Your task to perform on an android device: find snoozed emails in the gmail app Image 0: 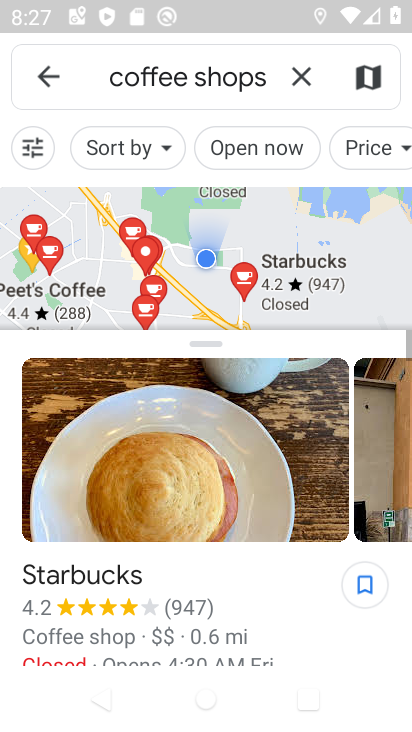
Step 0: press home button
Your task to perform on an android device: find snoozed emails in the gmail app Image 1: 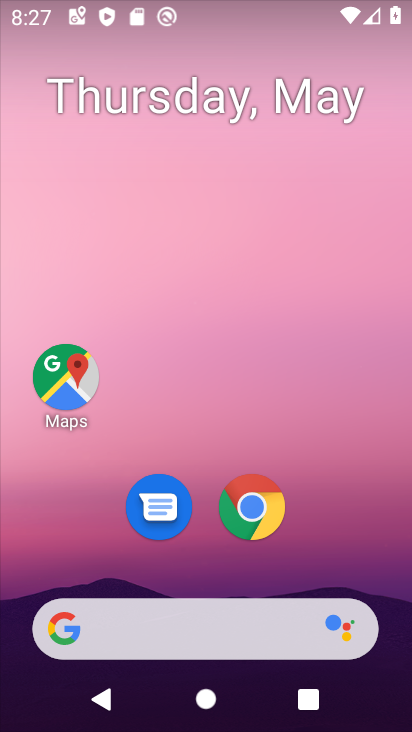
Step 1: drag from (360, 535) to (369, 75)
Your task to perform on an android device: find snoozed emails in the gmail app Image 2: 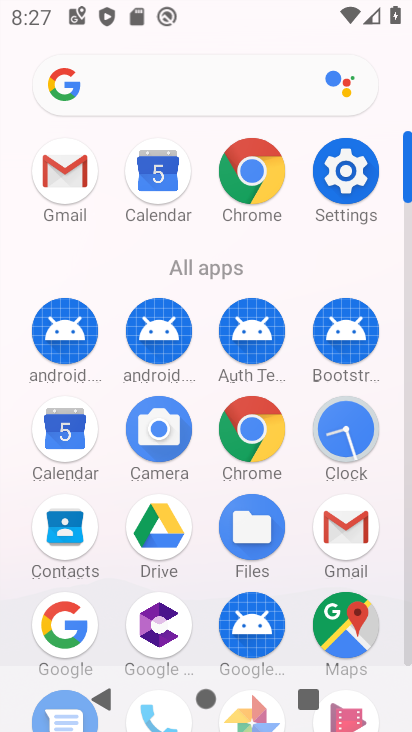
Step 2: click (353, 528)
Your task to perform on an android device: find snoozed emails in the gmail app Image 3: 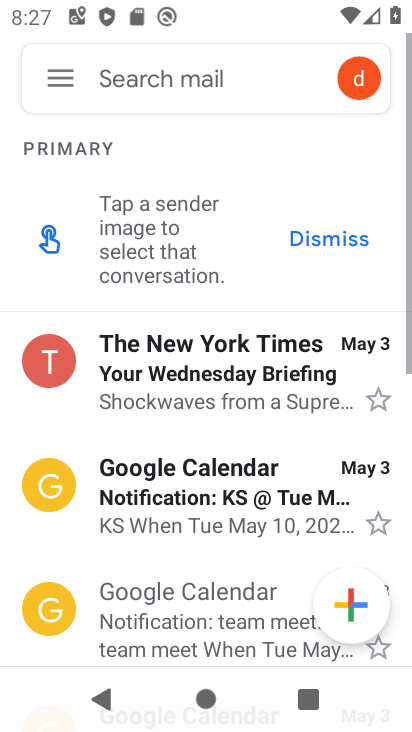
Step 3: click (59, 81)
Your task to perform on an android device: find snoozed emails in the gmail app Image 4: 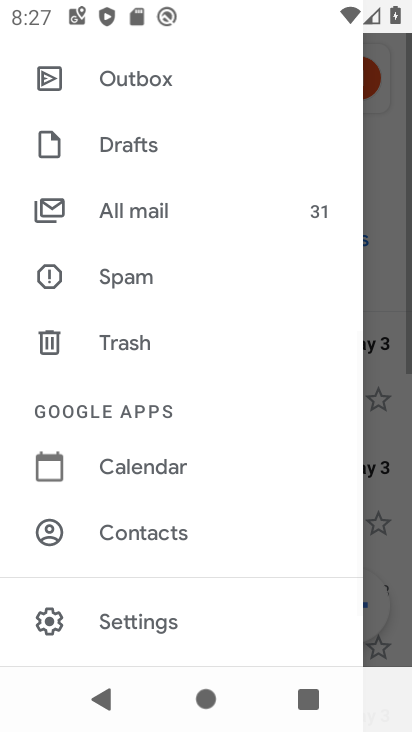
Step 4: drag from (205, 200) to (180, 518)
Your task to perform on an android device: find snoozed emails in the gmail app Image 5: 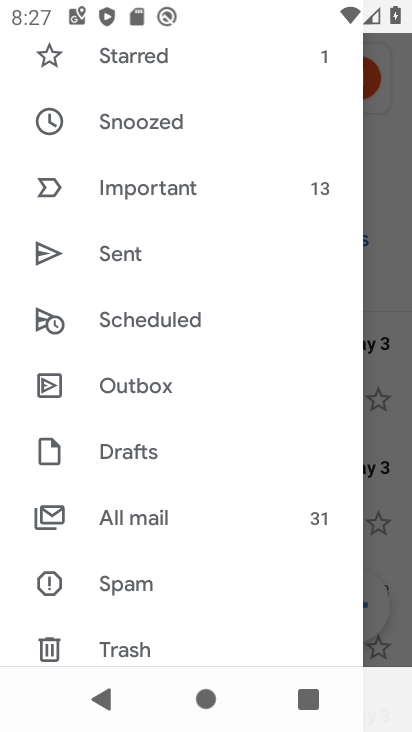
Step 5: click (179, 122)
Your task to perform on an android device: find snoozed emails in the gmail app Image 6: 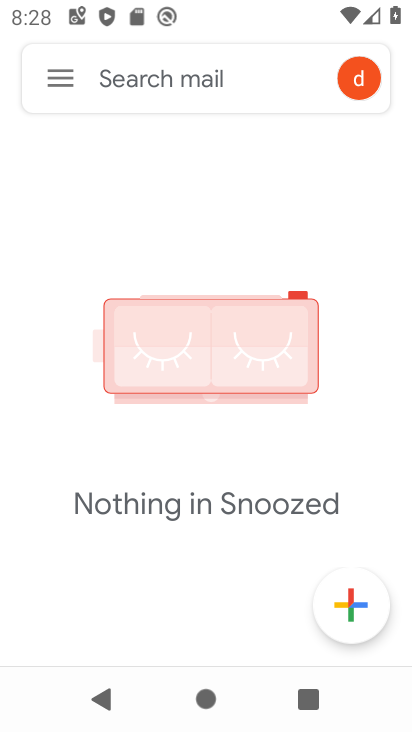
Step 6: task complete